Your task to perform on an android device: stop showing notifications on the lock screen Image 0: 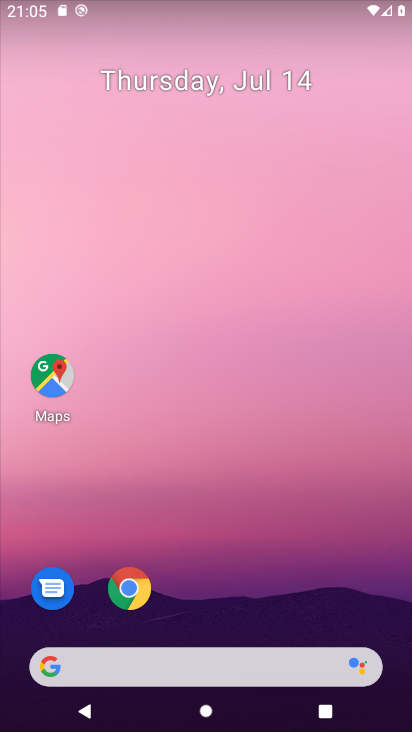
Step 0: drag from (321, 595) to (340, 88)
Your task to perform on an android device: stop showing notifications on the lock screen Image 1: 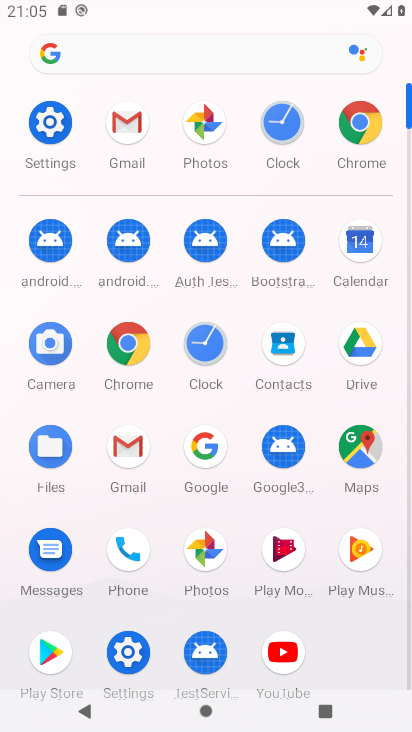
Step 1: click (50, 135)
Your task to perform on an android device: stop showing notifications on the lock screen Image 2: 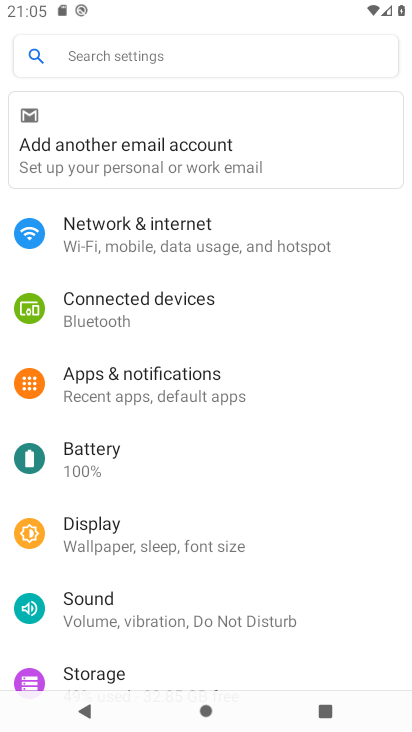
Step 2: click (197, 389)
Your task to perform on an android device: stop showing notifications on the lock screen Image 3: 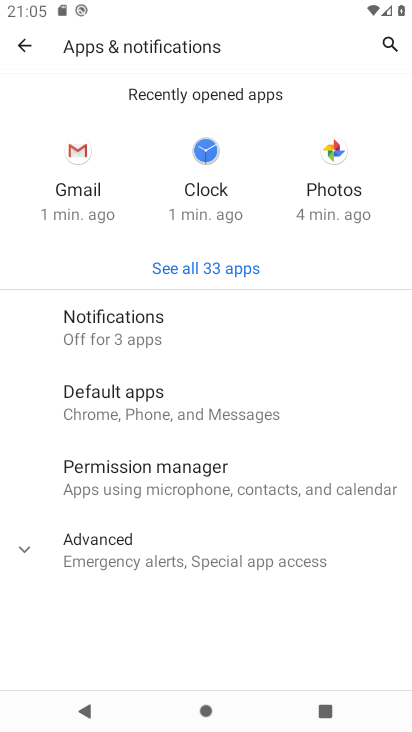
Step 3: click (147, 323)
Your task to perform on an android device: stop showing notifications on the lock screen Image 4: 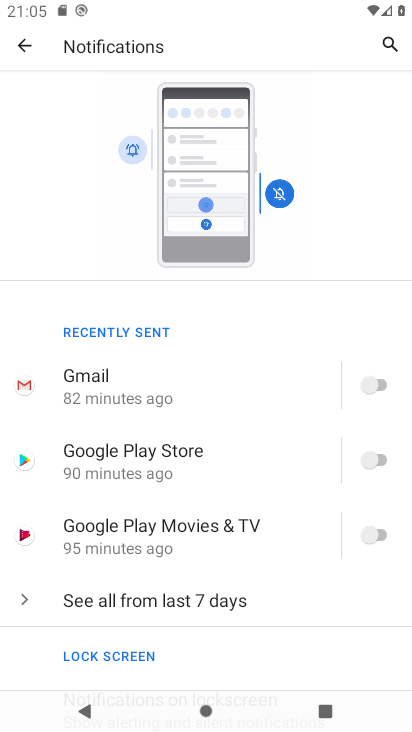
Step 4: drag from (314, 543) to (313, 473)
Your task to perform on an android device: stop showing notifications on the lock screen Image 5: 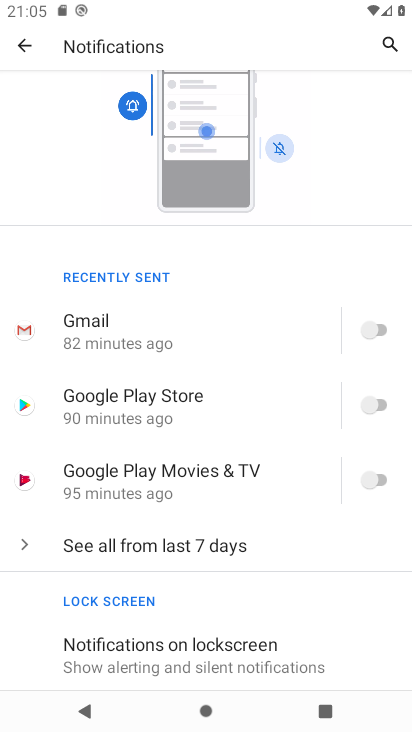
Step 5: drag from (314, 546) to (315, 426)
Your task to perform on an android device: stop showing notifications on the lock screen Image 6: 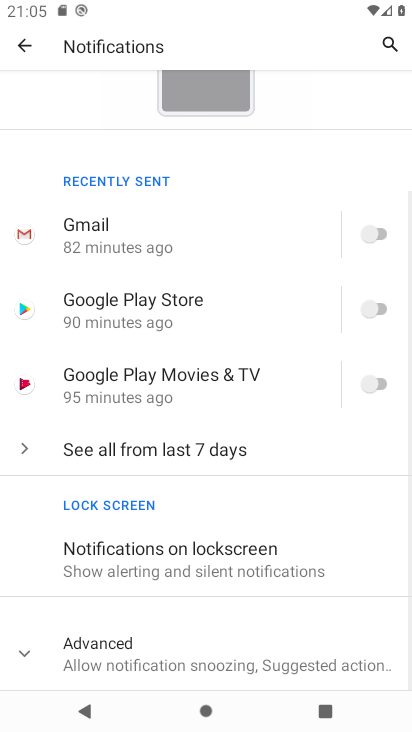
Step 6: drag from (334, 520) to (334, 432)
Your task to perform on an android device: stop showing notifications on the lock screen Image 7: 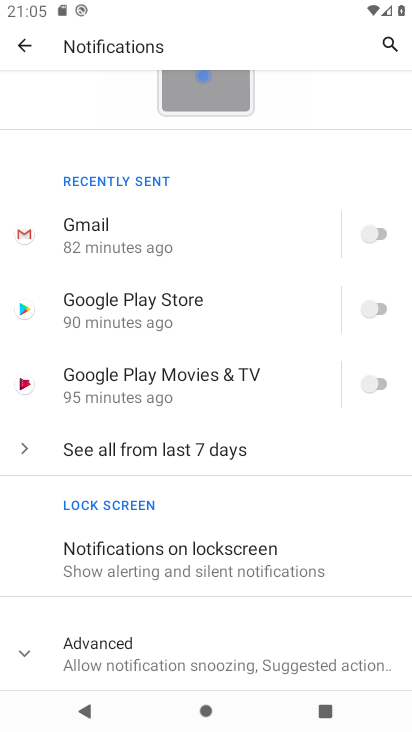
Step 7: click (244, 552)
Your task to perform on an android device: stop showing notifications on the lock screen Image 8: 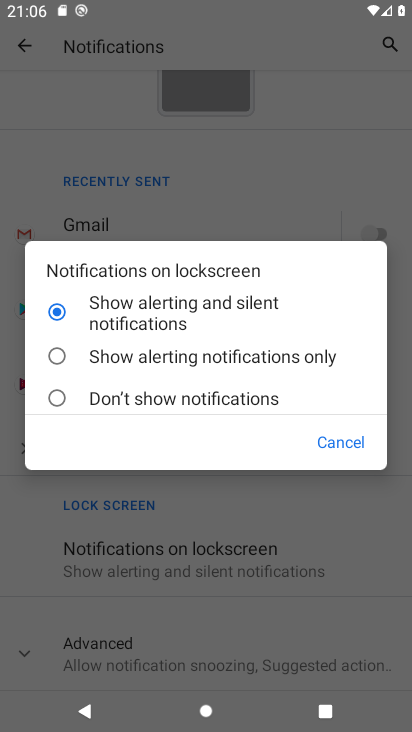
Step 8: click (116, 387)
Your task to perform on an android device: stop showing notifications on the lock screen Image 9: 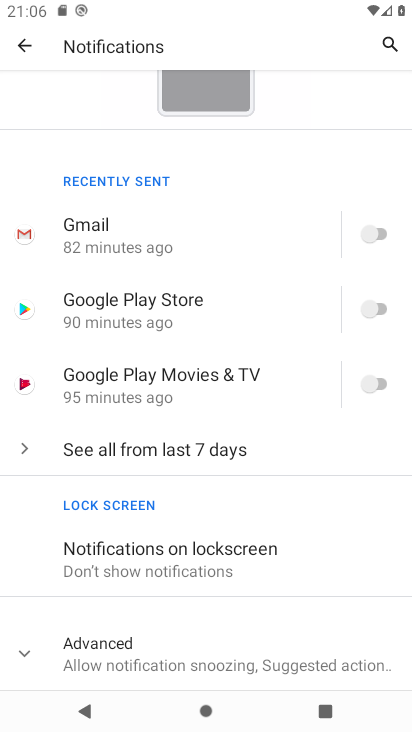
Step 9: task complete